Your task to perform on an android device: Go to Yahoo.com Image 0: 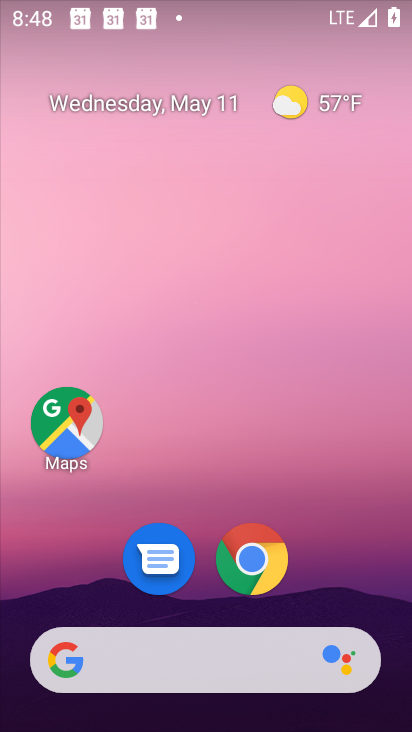
Step 0: click (280, 584)
Your task to perform on an android device: Go to Yahoo.com Image 1: 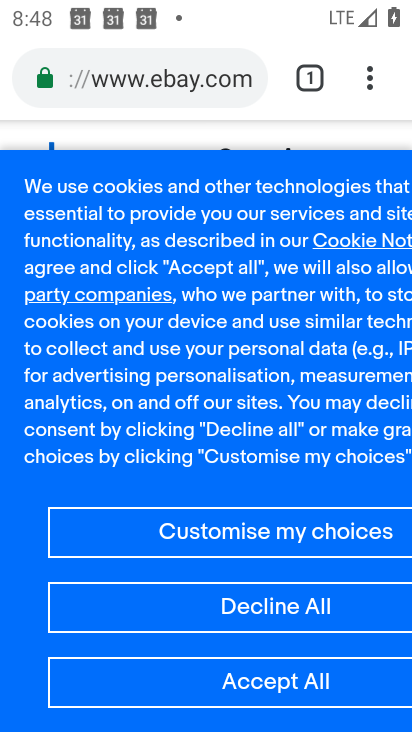
Step 1: click (146, 77)
Your task to perform on an android device: Go to Yahoo.com Image 2: 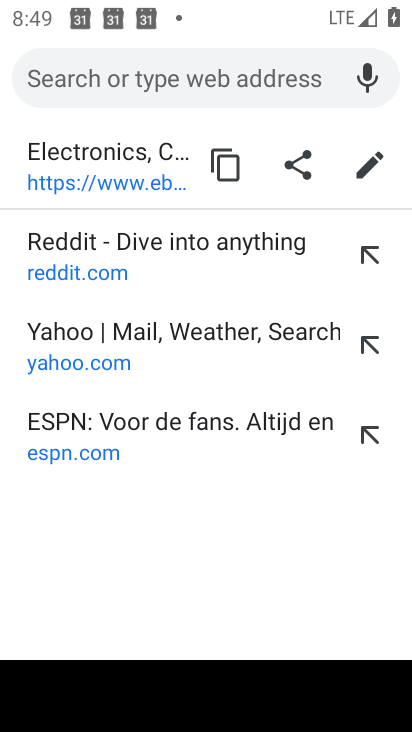
Step 2: type "Yahoo.com"
Your task to perform on an android device: Go to Yahoo.com Image 3: 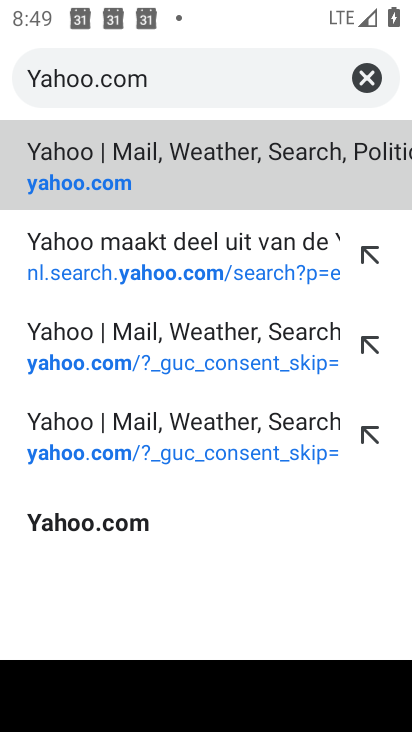
Step 3: click (222, 196)
Your task to perform on an android device: Go to Yahoo.com Image 4: 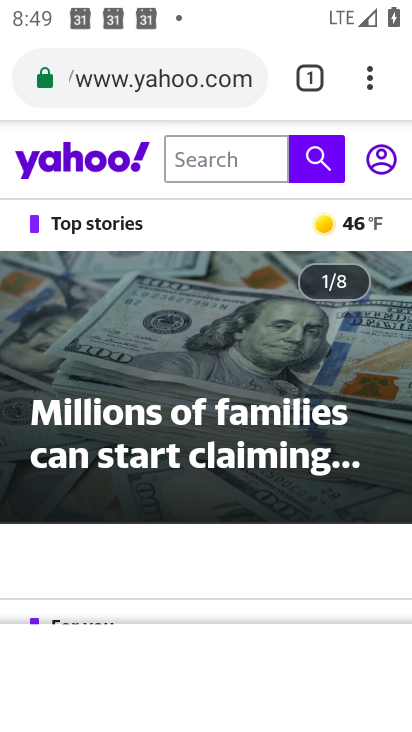
Step 4: task complete